Your task to perform on an android device: delete a single message in the gmail app Image 0: 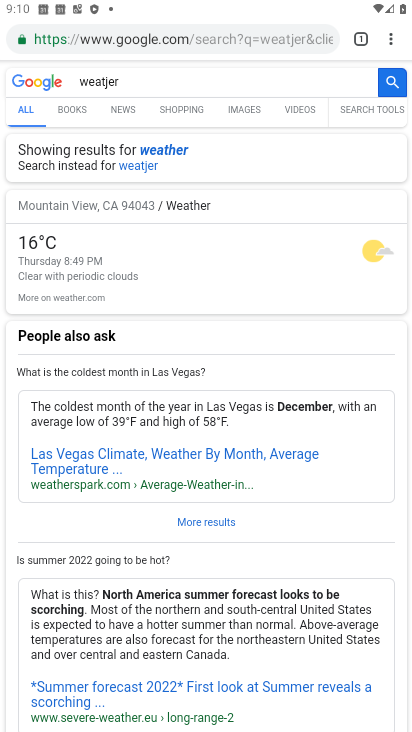
Step 0: drag from (194, 628) to (243, 366)
Your task to perform on an android device: delete a single message in the gmail app Image 1: 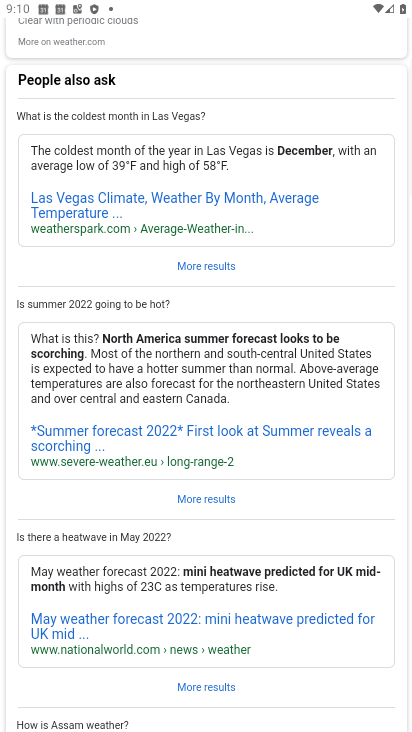
Step 1: drag from (218, 234) to (402, 708)
Your task to perform on an android device: delete a single message in the gmail app Image 2: 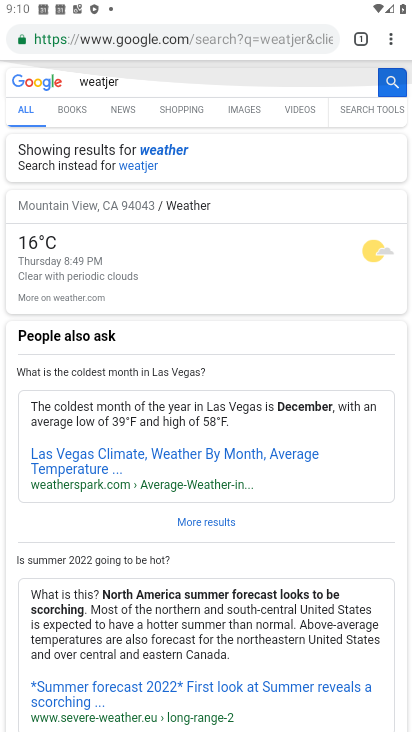
Step 2: press home button
Your task to perform on an android device: delete a single message in the gmail app Image 3: 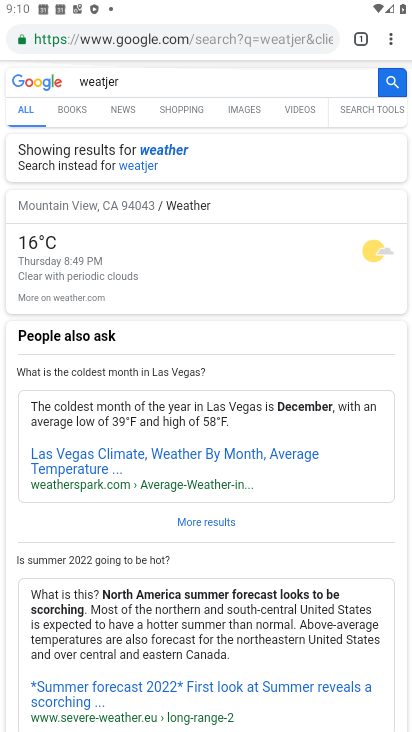
Step 3: drag from (402, 708) to (402, 405)
Your task to perform on an android device: delete a single message in the gmail app Image 4: 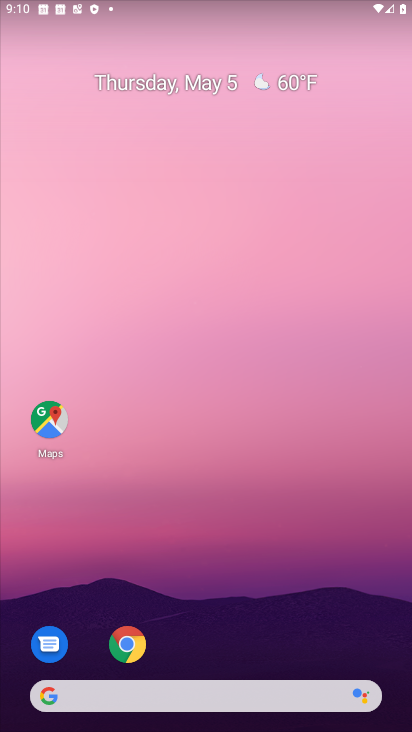
Step 4: drag from (212, 665) to (289, 232)
Your task to perform on an android device: delete a single message in the gmail app Image 5: 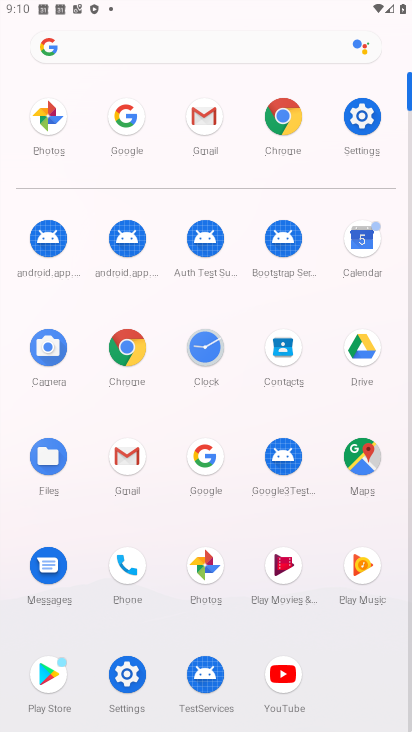
Step 5: click (130, 449)
Your task to perform on an android device: delete a single message in the gmail app Image 6: 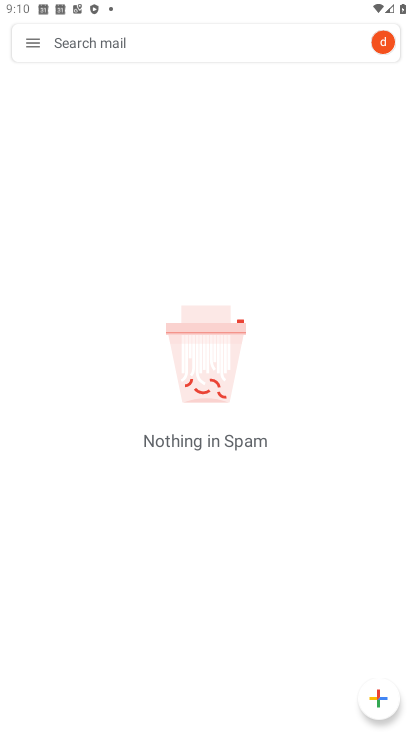
Step 6: click (36, 38)
Your task to perform on an android device: delete a single message in the gmail app Image 7: 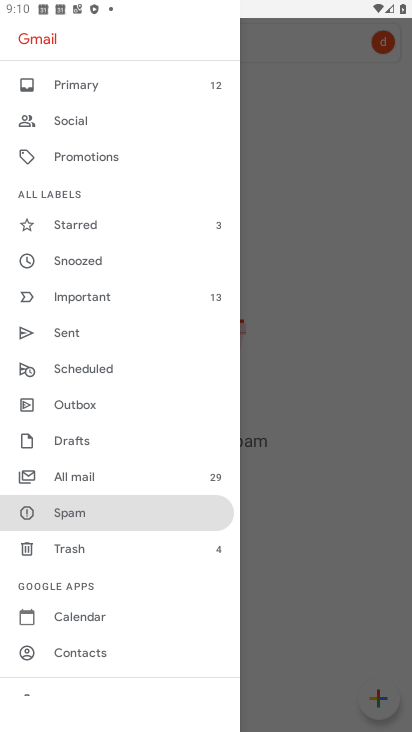
Step 7: click (102, 94)
Your task to perform on an android device: delete a single message in the gmail app Image 8: 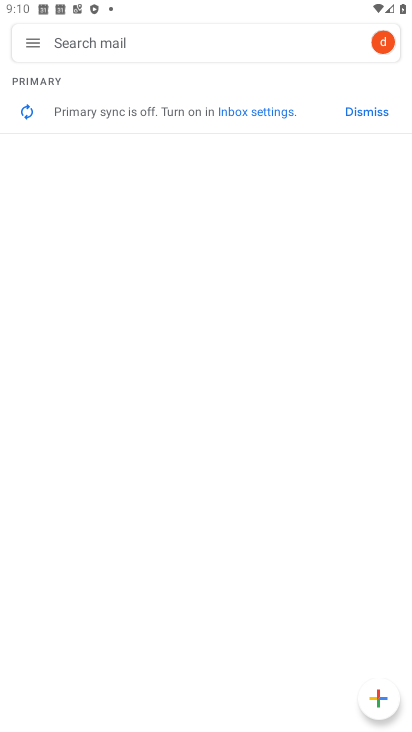
Step 8: click (37, 46)
Your task to perform on an android device: delete a single message in the gmail app Image 9: 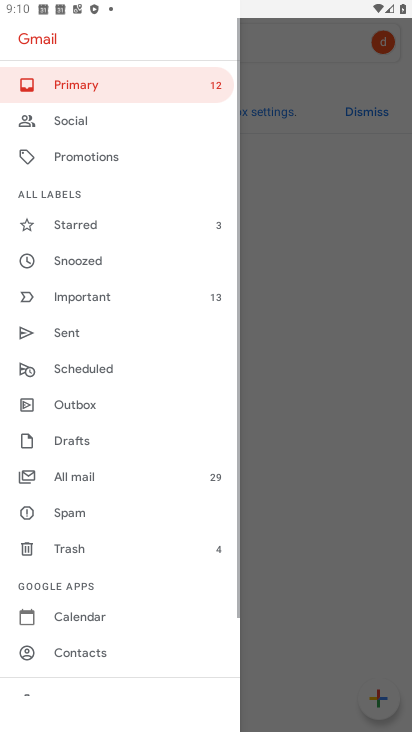
Step 9: click (110, 85)
Your task to perform on an android device: delete a single message in the gmail app Image 10: 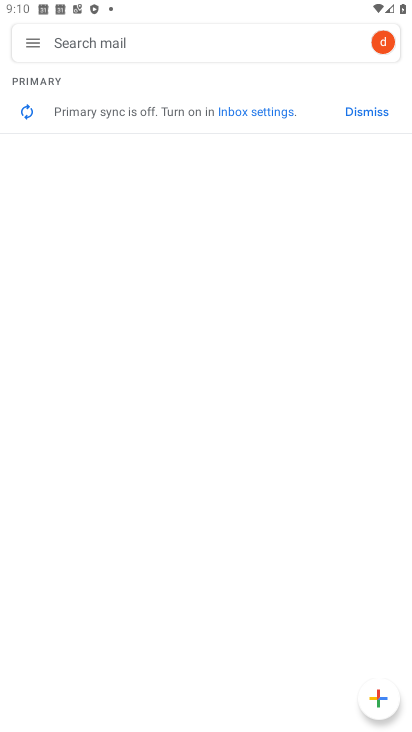
Step 10: drag from (207, 228) to (275, 564)
Your task to perform on an android device: delete a single message in the gmail app Image 11: 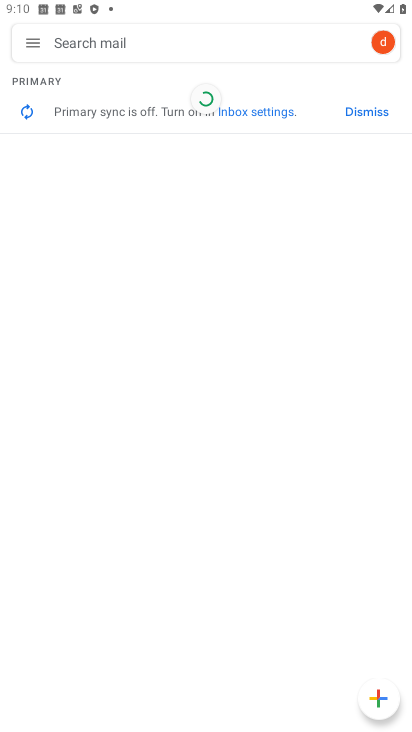
Step 11: click (358, 101)
Your task to perform on an android device: delete a single message in the gmail app Image 12: 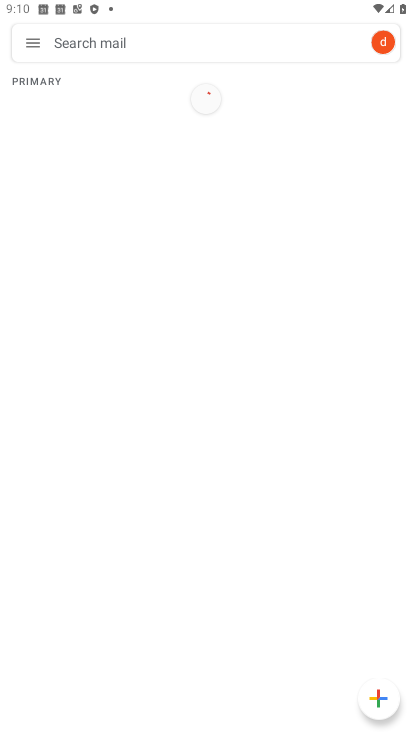
Step 12: click (370, 112)
Your task to perform on an android device: delete a single message in the gmail app Image 13: 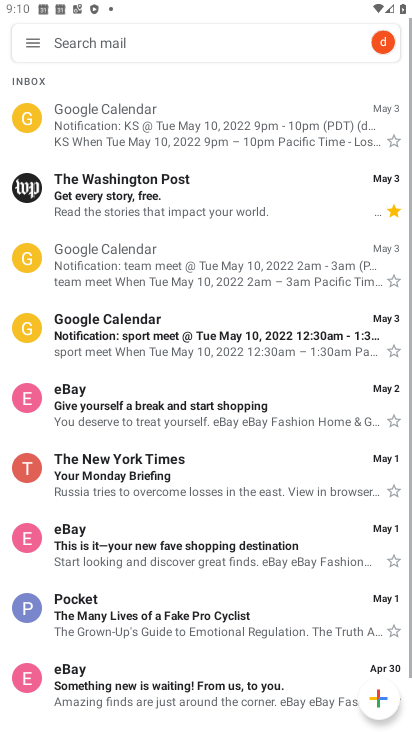
Step 13: click (35, 112)
Your task to perform on an android device: delete a single message in the gmail app Image 14: 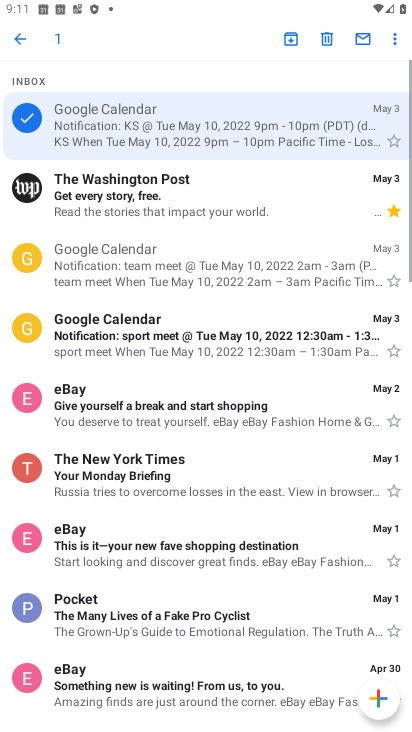
Step 14: click (38, 120)
Your task to perform on an android device: delete a single message in the gmail app Image 15: 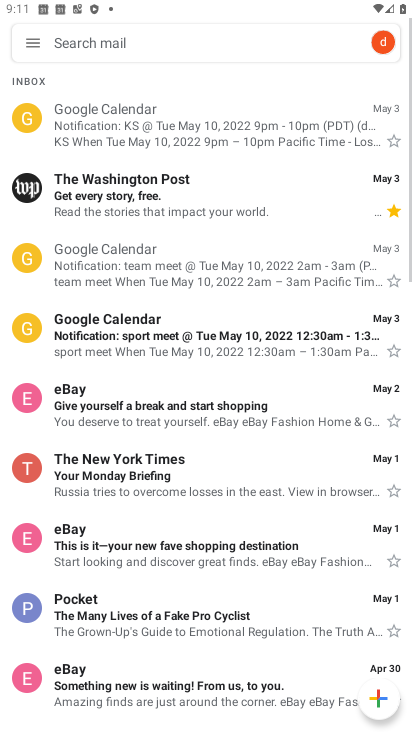
Step 15: click (22, 180)
Your task to perform on an android device: delete a single message in the gmail app Image 16: 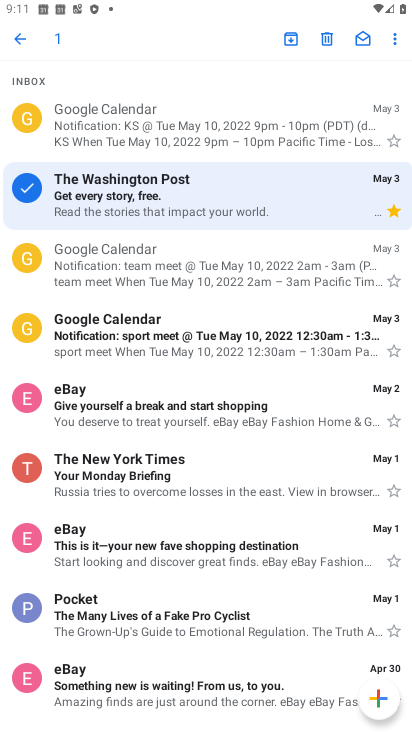
Step 16: click (327, 39)
Your task to perform on an android device: delete a single message in the gmail app Image 17: 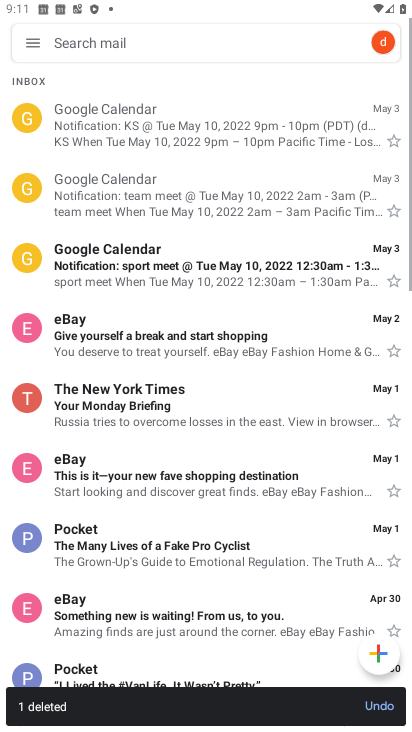
Step 17: task complete